Your task to perform on an android device: Go to notification settings Image 0: 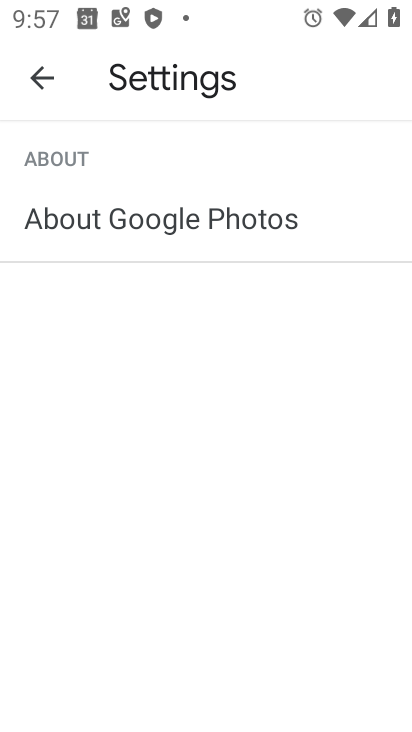
Step 0: drag from (335, 620) to (129, 175)
Your task to perform on an android device: Go to notification settings Image 1: 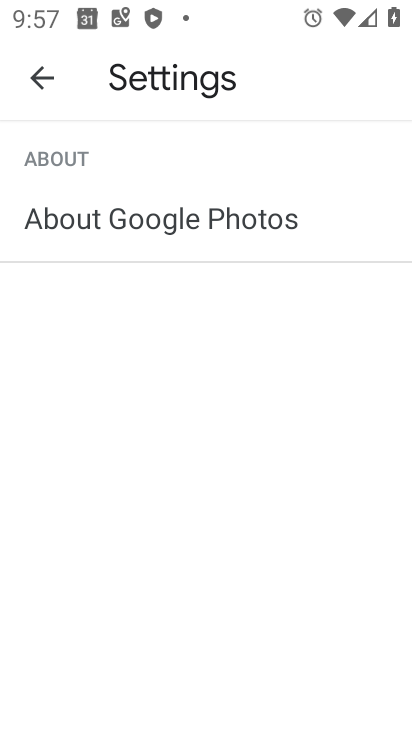
Step 1: click (30, 73)
Your task to perform on an android device: Go to notification settings Image 2: 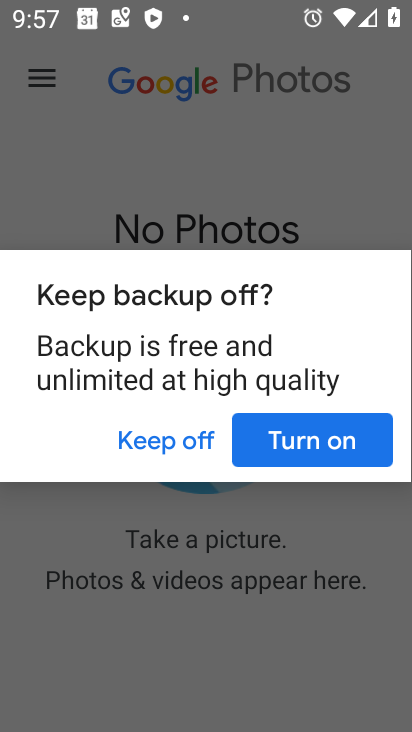
Step 2: press back button
Your task to perform on an android device: Go to notification settings Image 3: 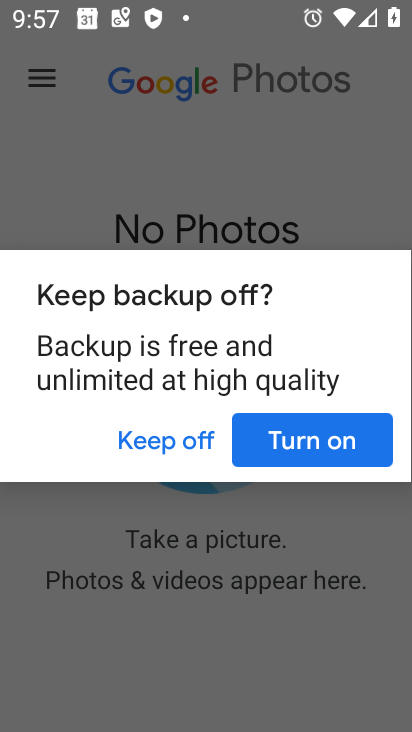
Step 3: click (309, 445)
Your task to perform on an android device: Go to notification settings Image 4: 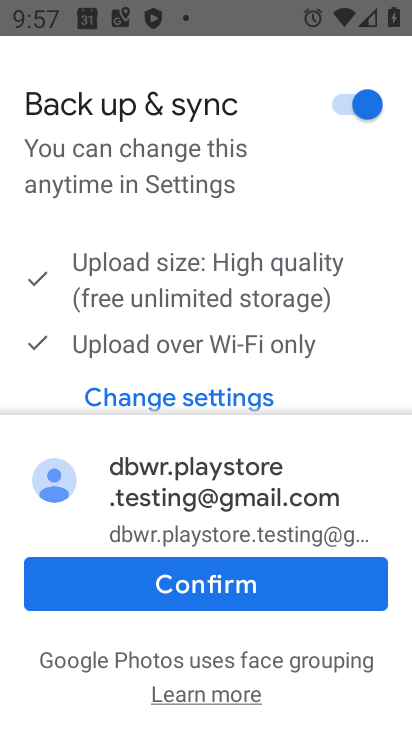
Step 4: click (225, 577)
Your task to perform on an android device: Go to notification settings Image 5: 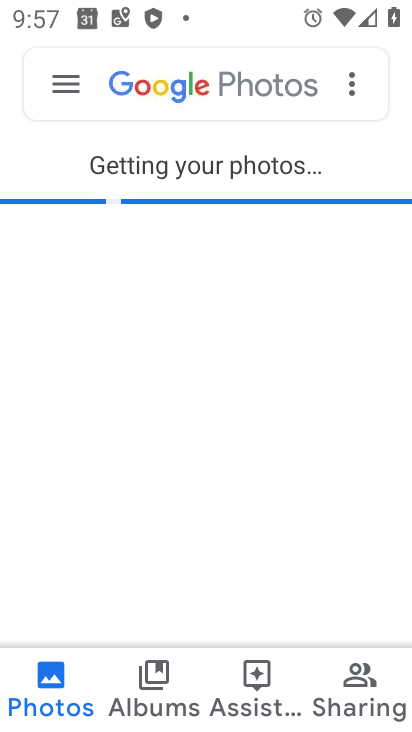
Step 5: press back button
Your task to perform on an android device: Go to notification settings Image 6: 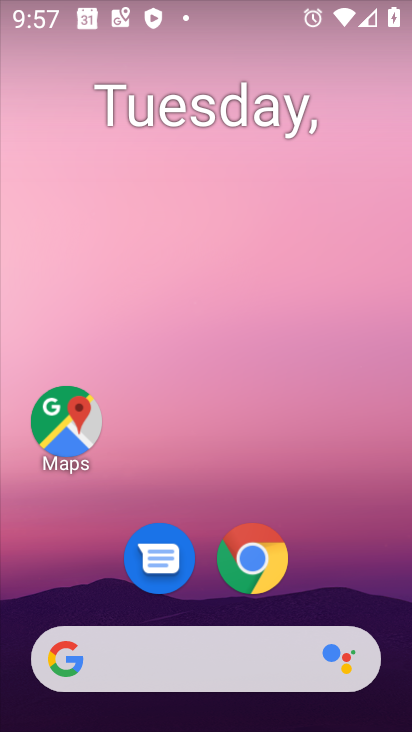
Step 6: drag from (374, 636) to (310, 223)
Your task to perform on an android device: Go to notification settings Image 7: 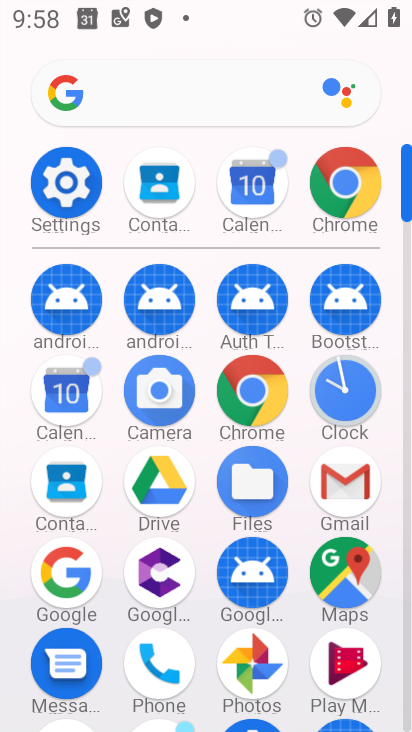
Step 7: click (71, 172)
Your task to perform on an android device: Go to notification settings Image 8: 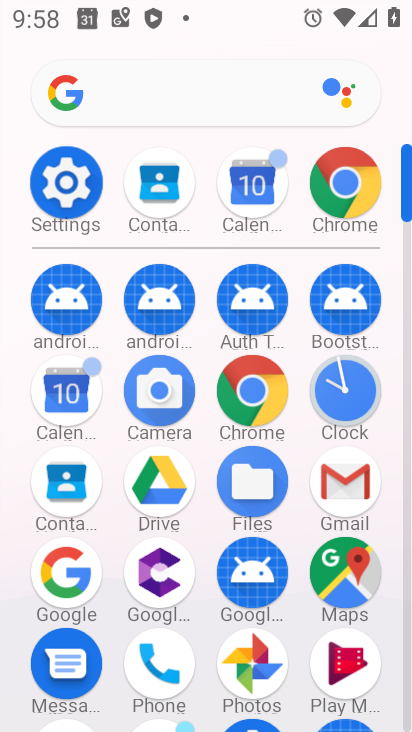
Step 8: click (71, 172)
Your task to perform on an android device: Go to notification settings Image 9: 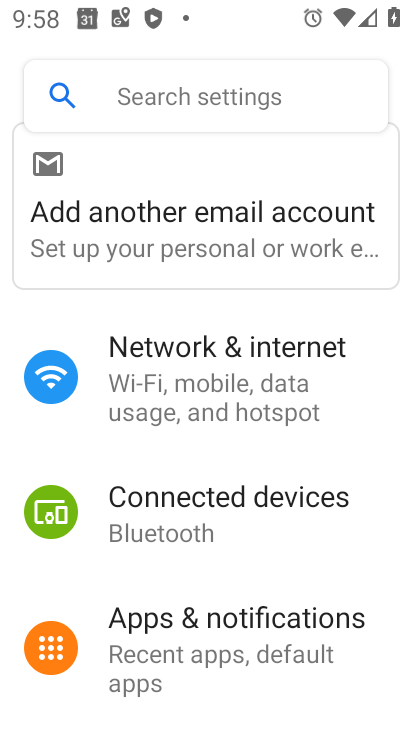
Step 9: click (227, 628)
Your task to perform on an android device: Go to notification settings Image 10: 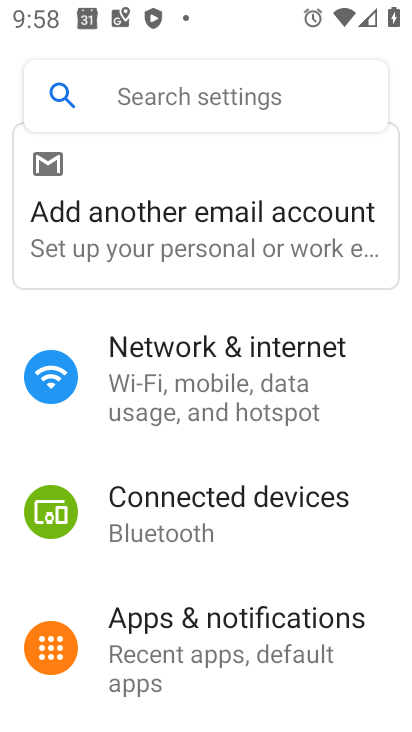
Step 10: click (226, 629)
Your task to perform on an android device: Go to notification settings Image 11: 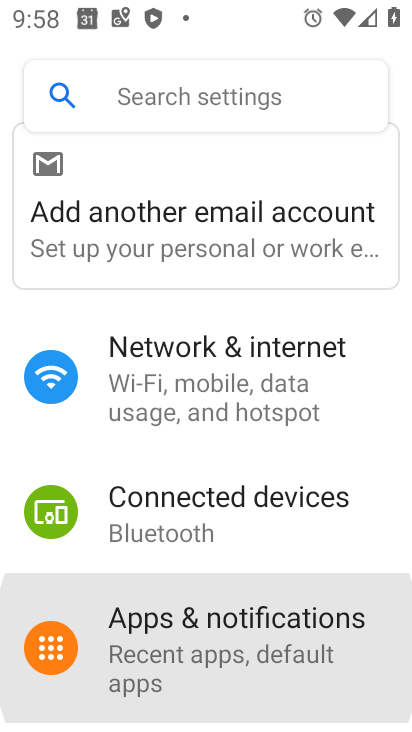
Step 11: click (227, 630)
Your task to perform on an android device: Go to notification settings Image 12: 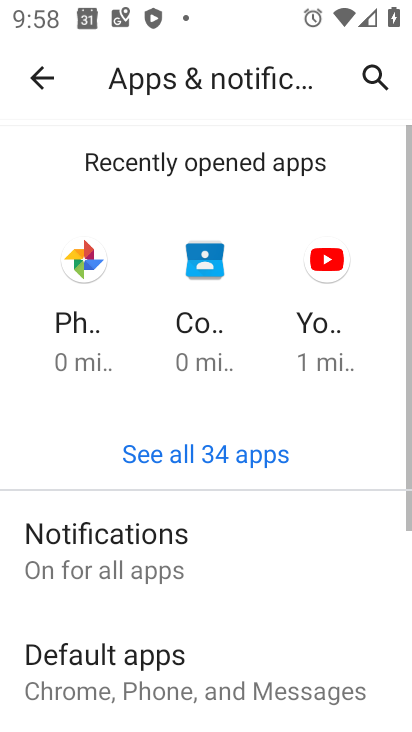
Step 12: drag from (189, 546) to (169, 177)
Your task to perform on an android device: Go to notification settings Image 13: 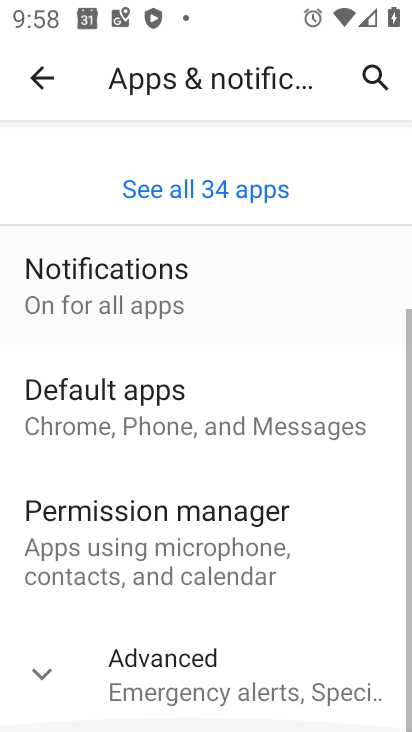
Step 13: drag from (225, 491) to (179, 148)
Your task to perform on an android device: Go to notification settings Image 14: 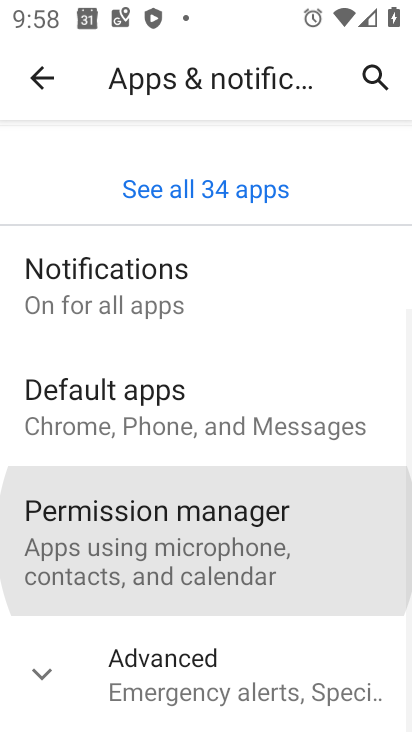
Step 14: drag from (190, 534) to (176, 110)
Your task to perform on an android device: Go to notification settings Image 15: 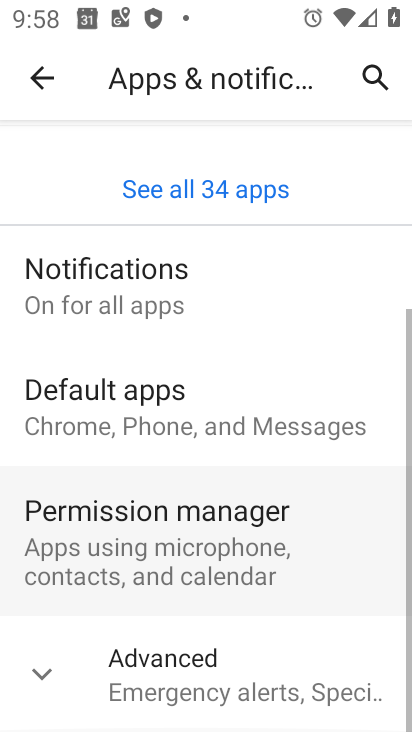
Step 15: drag from (244, 504) to (199, 94)
Your task to perform on an android device: Go to notification settings Image 16: 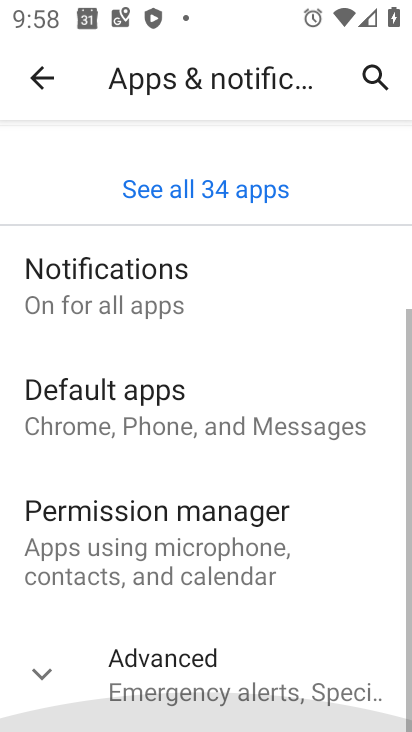
Step 16: drag from (295, 595) to (264, 171)
Your task to perform on an android device: Go to notification settings Image 17: 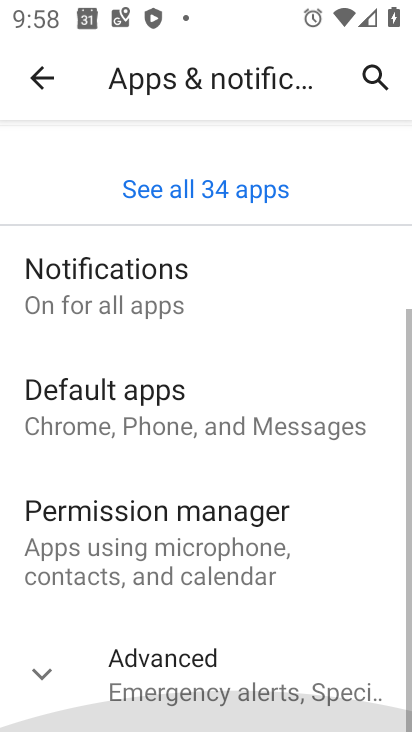
Step 17: drag from (241, 618) to (169, 143)
Your task to perform on an android device: Go to notification settings Image 18: 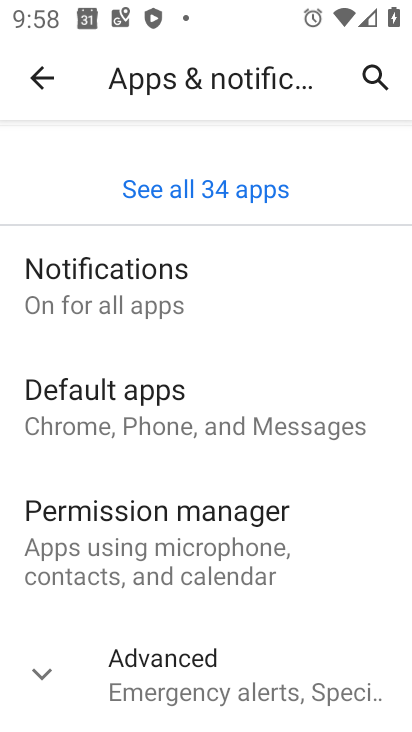
Step 18: click (113, 284)
Your task to perform on an android device: Go to notification settings Image 19: 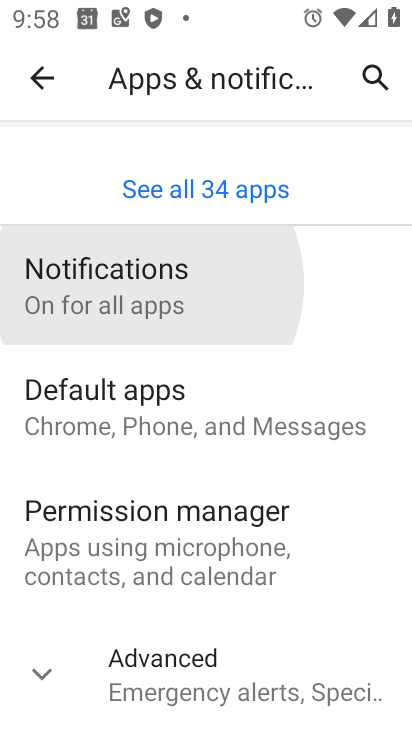
Step 19: click (113, 284)
Your task to perform on an android device: Go to notification settings Image 20: 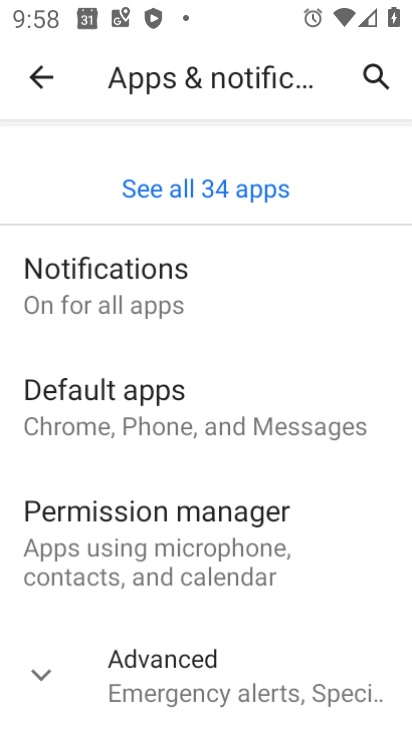
Step 20: click (113, 284)
Your task to perform on an android device: Go to notification settings Image 21: 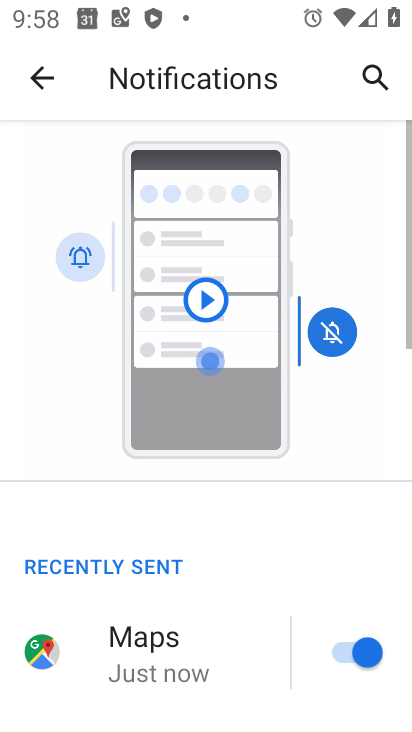
Step 21: task complete